Your task to perform on an android device: Open the web browser Image 0: 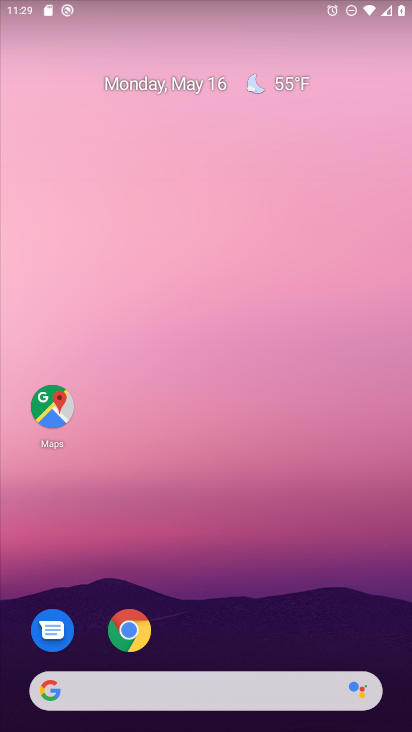
Step 0: click (118, 622)
Your task to perform on an android device: Open the web browser Image 1: 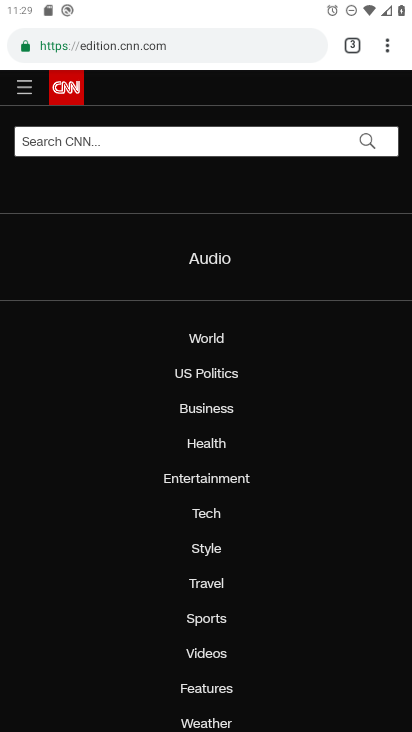
Step 1: click (348, 45)
Your task to perform on an android device: Open the web browser Image 2: 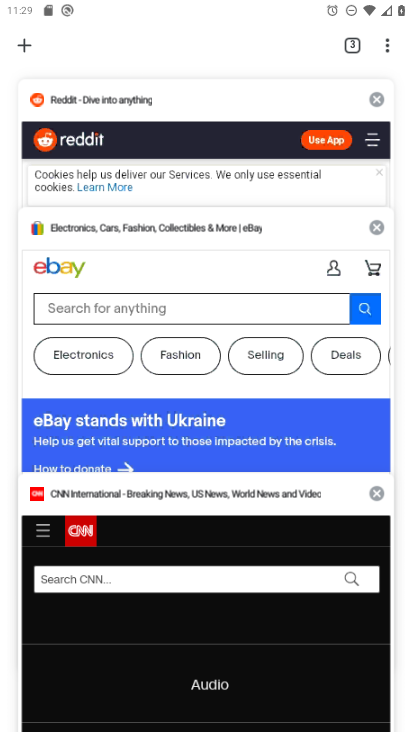
Step 2: task complete